Your task to perform on an android device: turn on priority inbox in the gmail app Image 0: 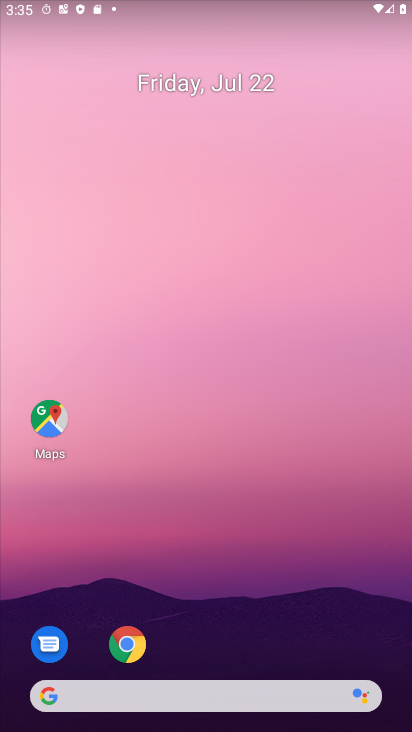
Step 0: press home button
Your task to perform on an android device: turn on priority inbox in the gmail app Image 1: 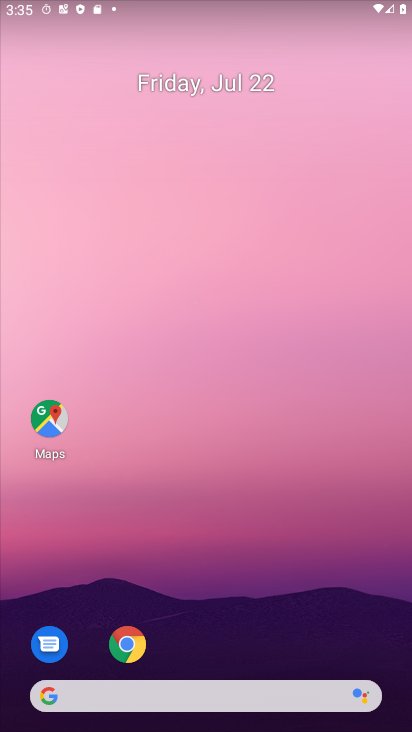
Step 1: drag from (234, 557) to (237, 167)
Your task to perform on an android device: turn on priority inbox in the gmail app Image 2: 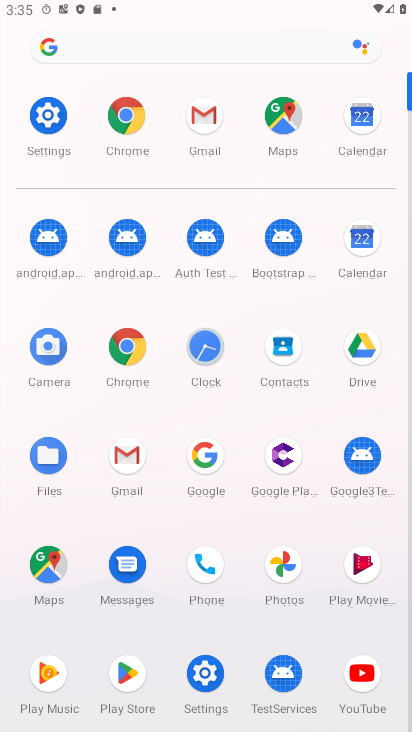
Step 2: click (205, 116)
Your task to perform on an android device: turn on priority inbox in the gmail app Image 3: 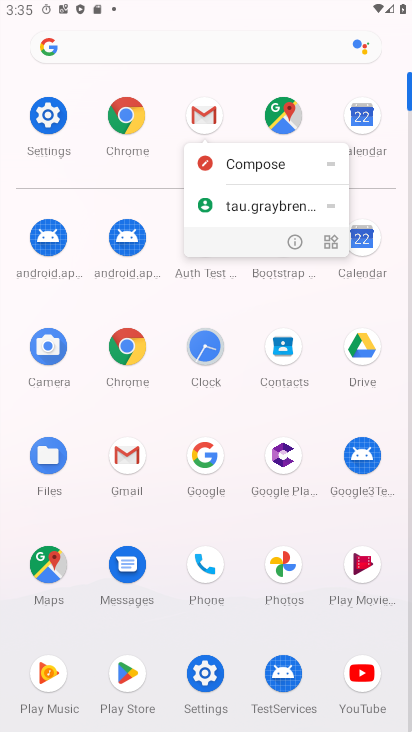
Step 3: click (205, 116)
Your task to perform on an android device: turn on priority inbox in the gmail app Image 4: 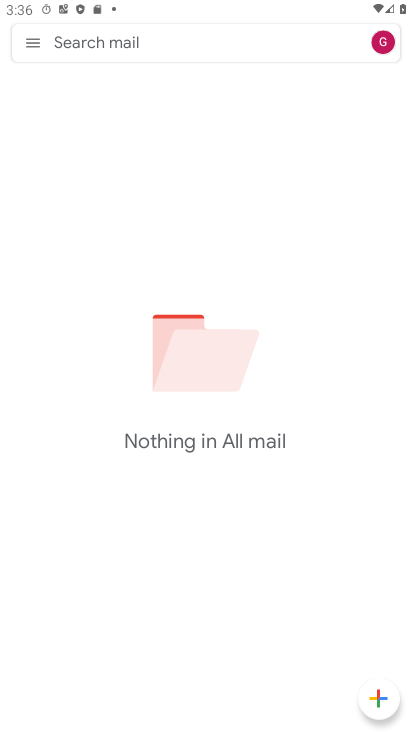
Step 4: click (26, 40)
Your task to perform on an android device: turn on priority inbox in the gmail app Image 5: 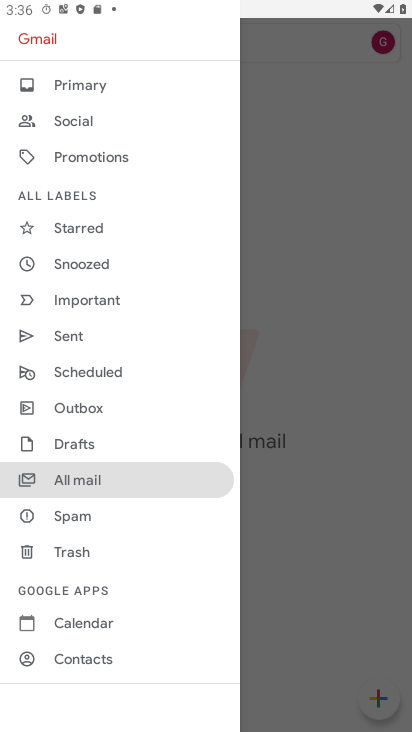
Step 5: drag from (186, 485) to (180, 74)
Your task to perform on an android device: turn on priority inbox in the gmail app Image 6: 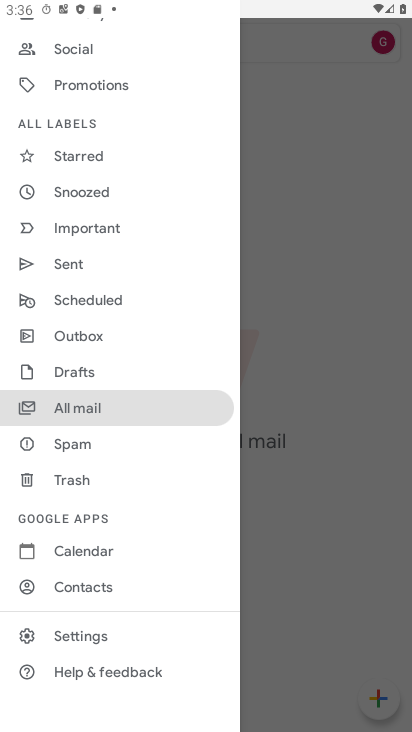
Step 6: click (83, 633)
Your task to perform on an android device: turn on priority inbox in the gmail app Image 7: 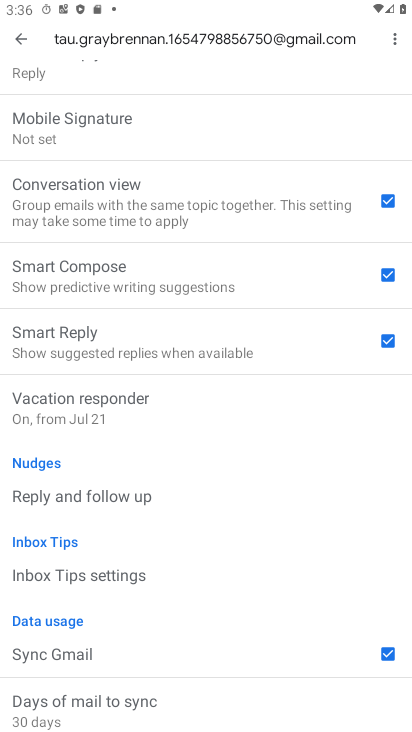
Step 7: drag from (242, 167) to (221, 664)
Your task to perform on an android device: turn on priority inbox in the gmail app Image 8: 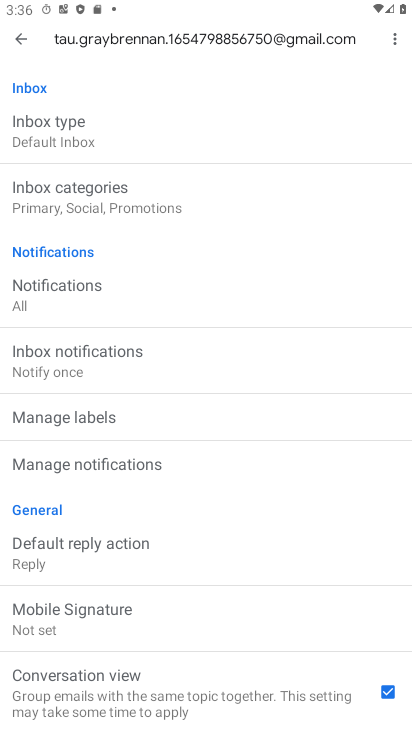
Step 8: click (58, 133)
Your task to perform on an android device: turn on priority inbox in the gmail app Image 9: 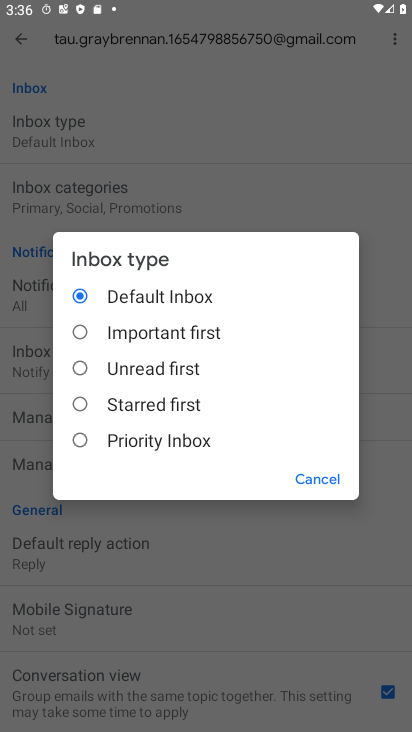
Step 9: click (77, 441)
Your task to perform on an android device: turn on priority inbox in the gmail app Image 10: 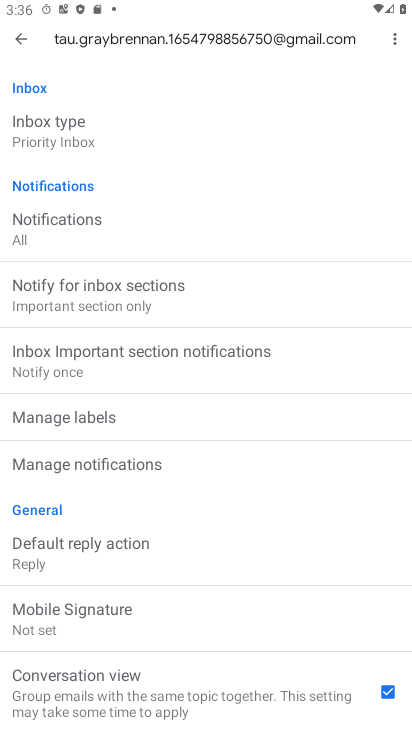
Step 10: task complete